Your task to perform on an android device: Search for pizza restaurants on Maps Image 0: 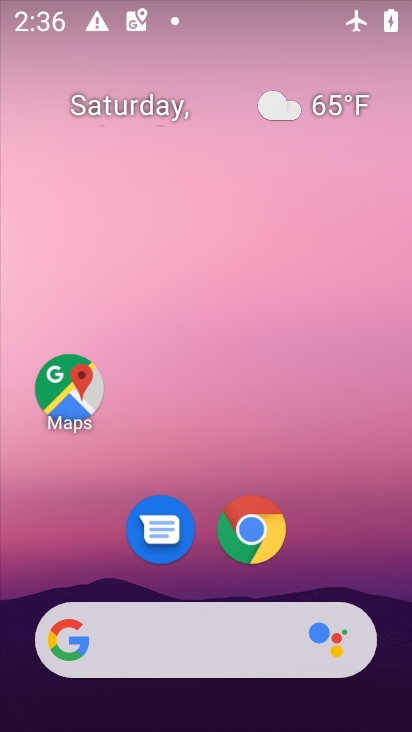
Step 0: drag from (375, 572) to (242, 58)
Your task to perform on an android device: Search for pizza restaurants on Maps Image 1: 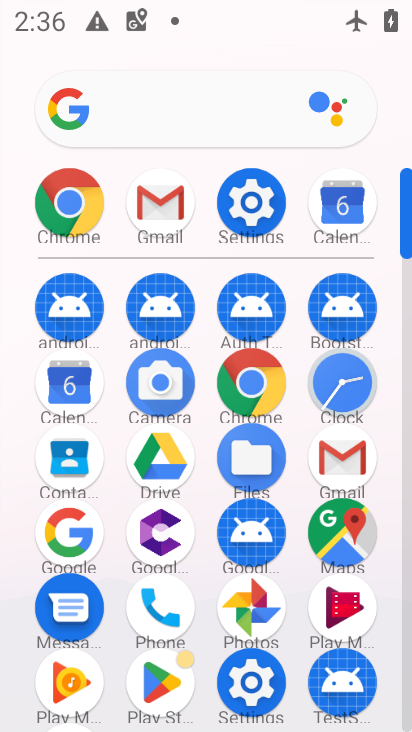
Step 1: click (345, 520)
Your task to perform on an android device: Search for pizza restaurants on Maps Image 2: 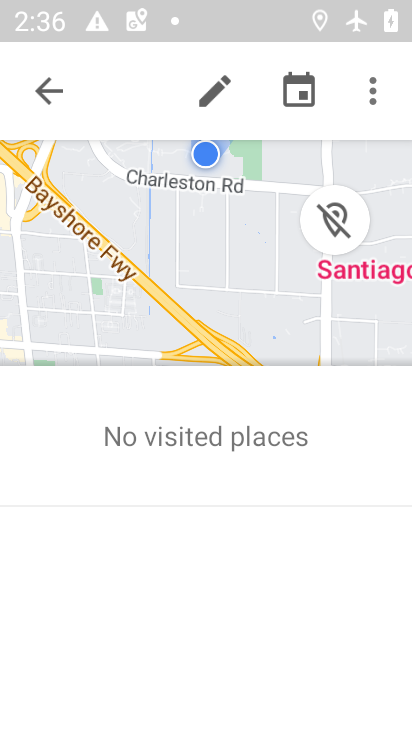
Step 2: click (59, 101)
Your task to perform on an android device: Search for pizza restaurants on Maps Image 3: 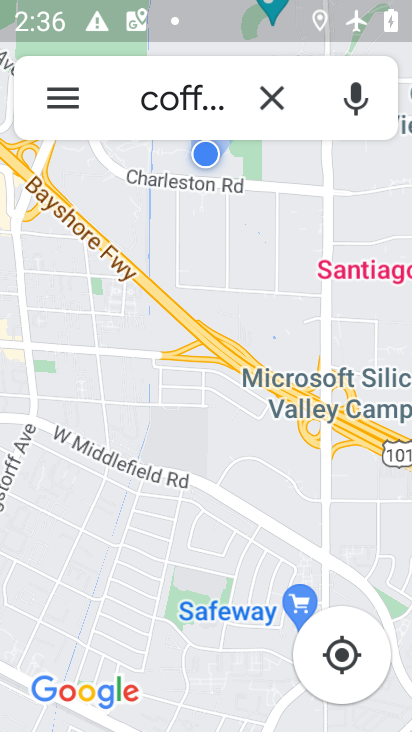
Step 3: click (269, 103)
Your task to perform on an android device: Search for pizza restaurants on Maps Image 4: 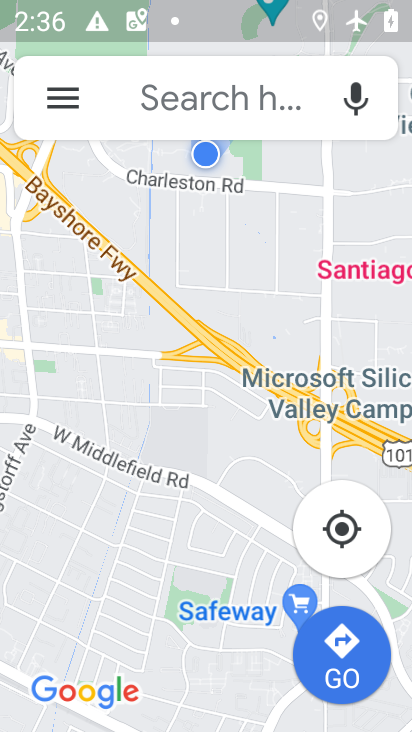
Step 4: click (207, 102)
Your task to perform on an android device: Search for pizza restaurants on Maps Image 5: 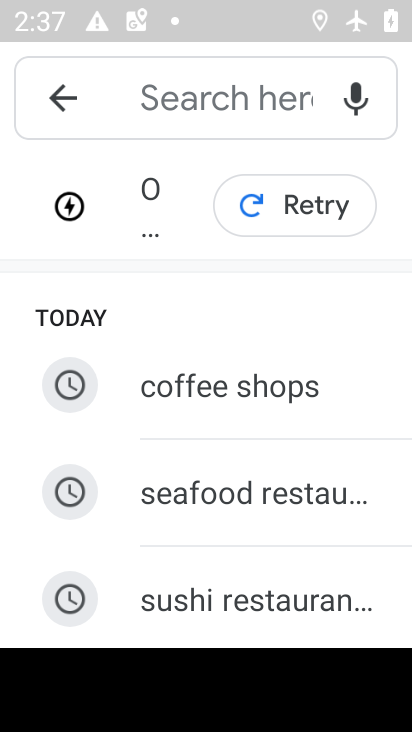
Step 5: type "pizza restaurants"
Your task to perform on an android device: Search for pizza restaurants on Maps Image 6: 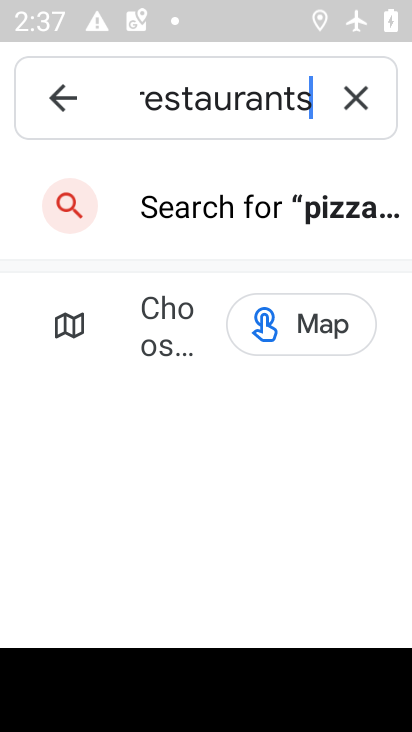
Step 6: click (367, 203)
Your task to perform on an android device: Search for pizza restaurants on Maps Image 7: 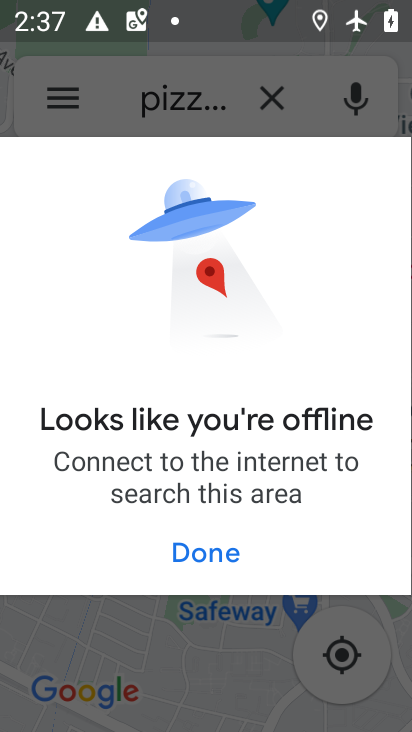
Step 7: task complete